Your task to perform on an android device: delete browsing data in the chrome app Image 0: 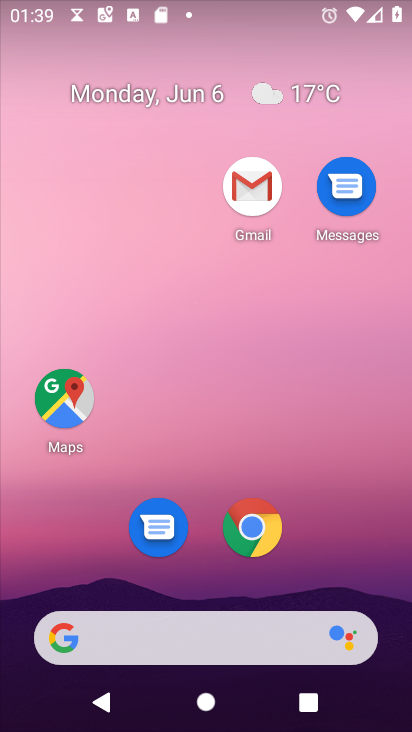
Step 0: click (238, 529)
Your task to perform on an android device: delete browsing data in the chrome app Image 1: 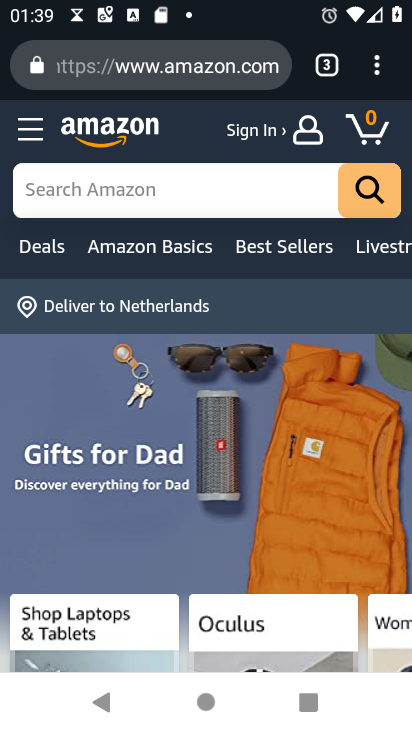
Step 1: click (386, 72)
Your task to perform on an android device: delete browsing data in the chrome app Image 2: 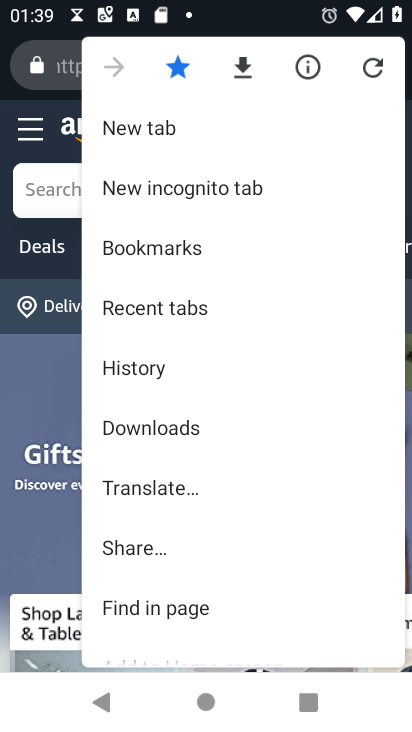
Step 2: drag from (202, 574) to (284, 161)
Your task to perform on an android device: delete browsing data in the chrome app Image 3: 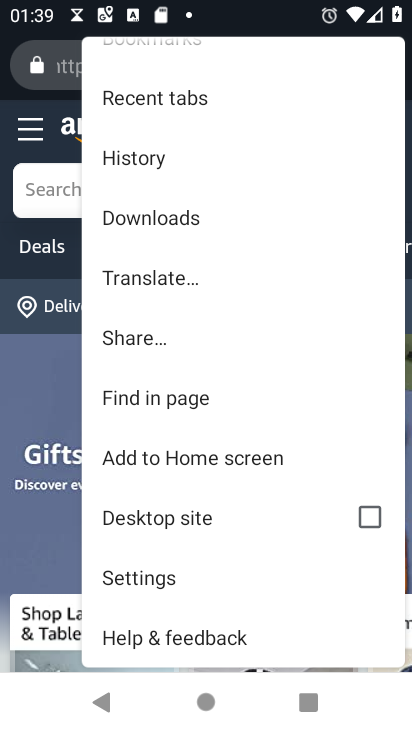
Step 3: click (165, 163)
Your task to perform on an android device: delete browsing data in the chrome app Image 4: 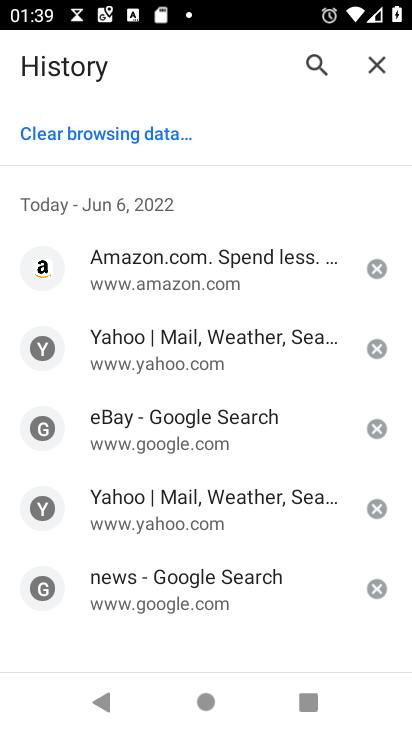
Step 4: click (144, 130)
Your task to perform on an android device: delete browsing data in the chrome app Image 5: 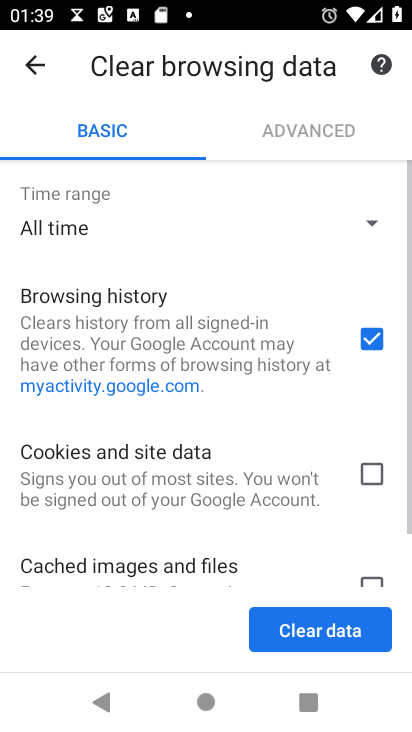
Step 5: click (330, 644)
Your task to perform on an android device: delete browsing data in the chrome app Image 6: 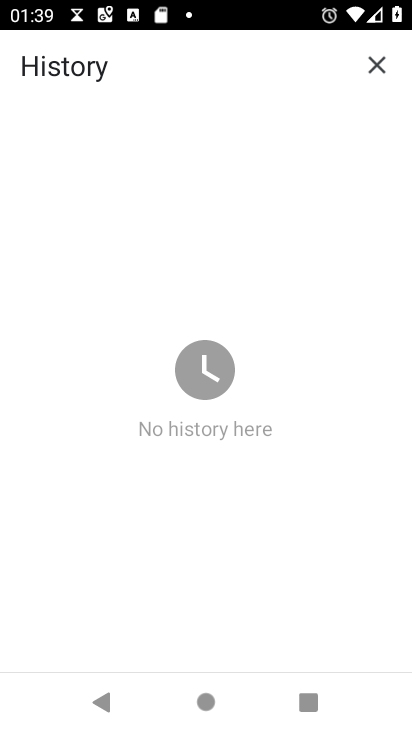
Step 6: task complete